Your task to perform on an android device: Open Youtube and go to "Your channel" Image 0: 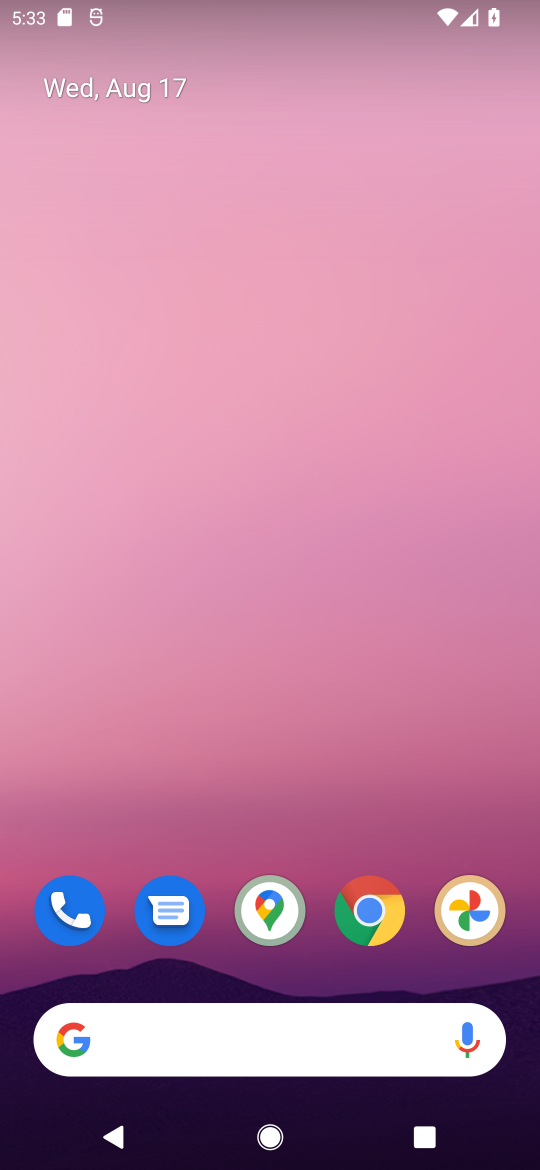
Step 0: drag from (199, 846) to (268, 455)
Your task to perform on an android device: Open Youtube and go to "Your channel" Image 1: 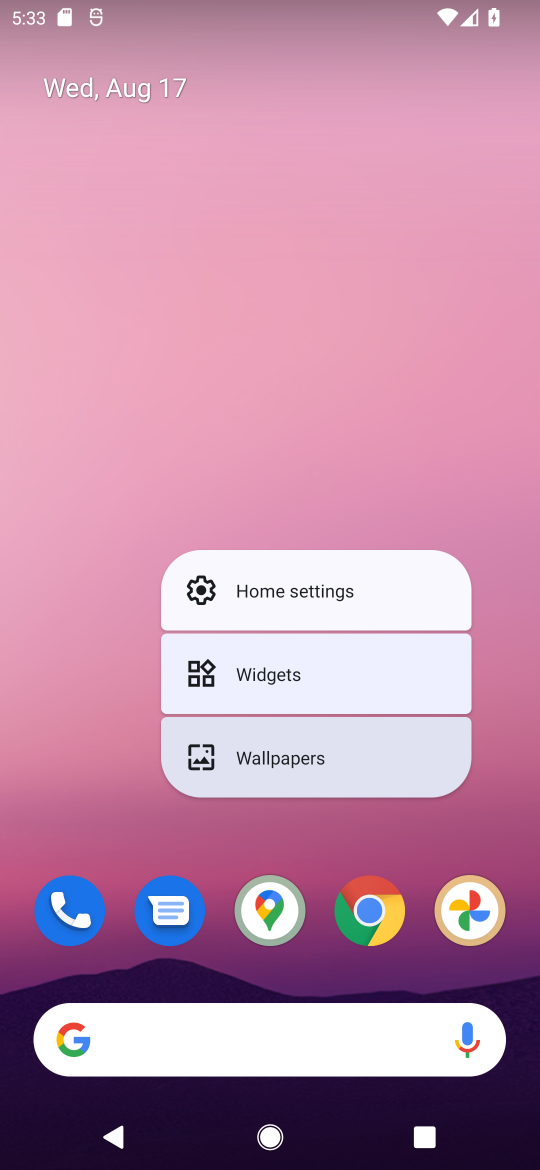
Step 1: click (140, 451)
Your task to perform on an android device: Open Youtube and go to "Your channel" Image 2: 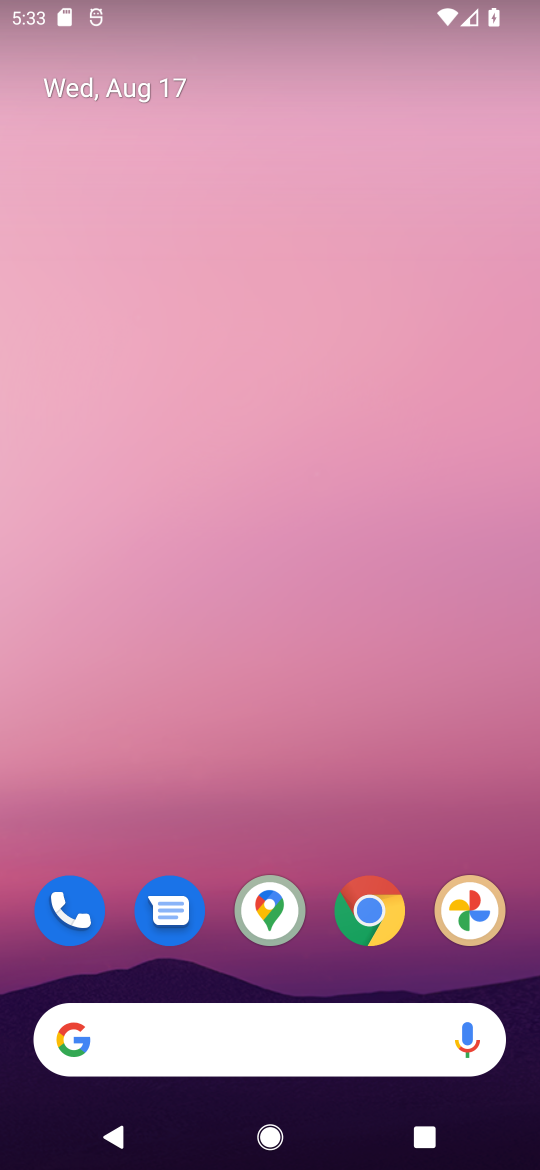
Step 2: drag from (279, 812) to (344, 168)
Your task to perform on an android device: Open Youtube and go to "Your channel" Image 3: 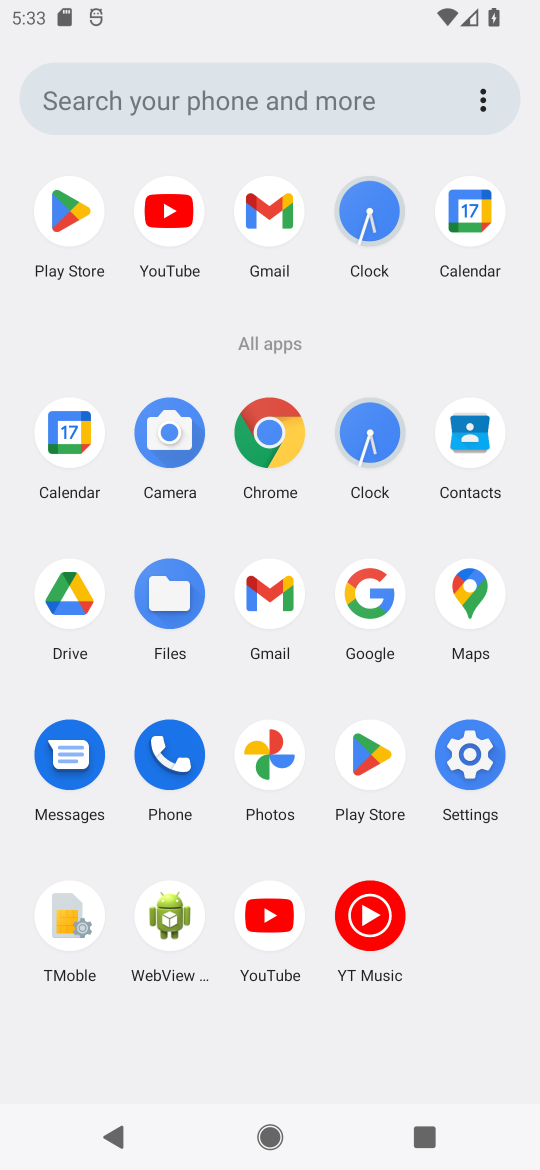
Step 3: click (271, 883)
Your task to perform on an android device: Open Youtube and go to "Your channel" Image 4: 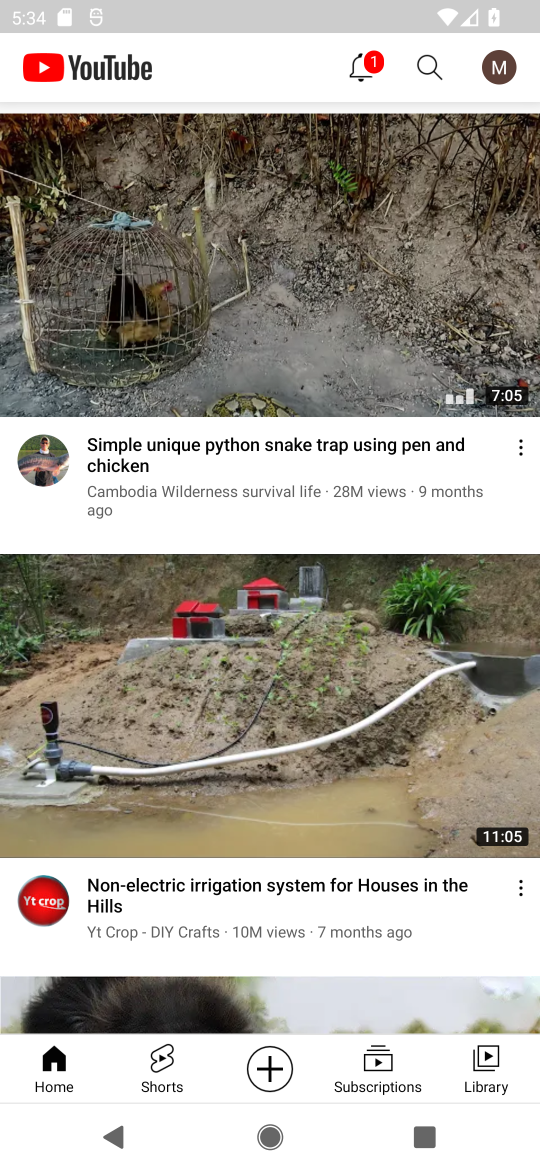
Step 4: task complete